Your task to perform on an android device: toggle data saver in the chrome app Image 0: 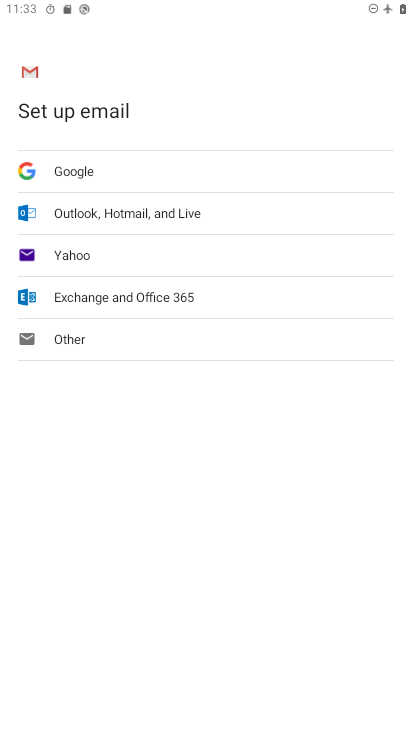
Step 0: press home button
Your task to perform on an android device: toggle data saver in the chrome app Image 1: 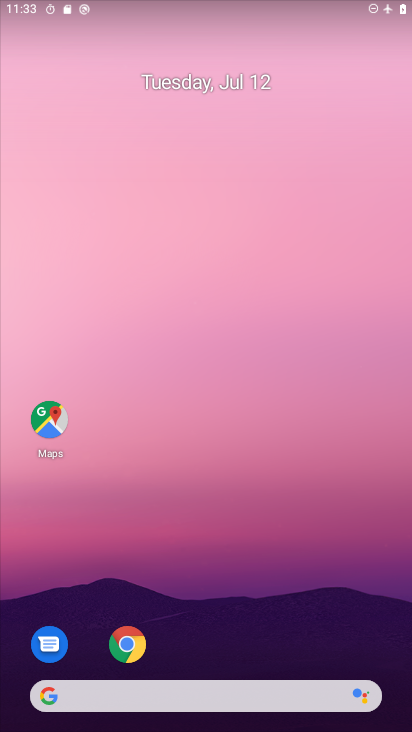
Step 1: click (118, 640)
Your task to perform on an android device: toggle data saver in the chrome app Image 2: 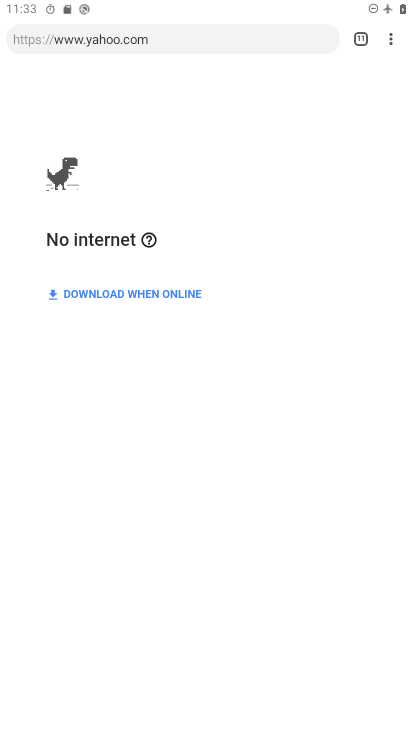
Step 2: click (385, 41)
Your task to perform on an android device: toggle data saver in the chrome app Image 3: 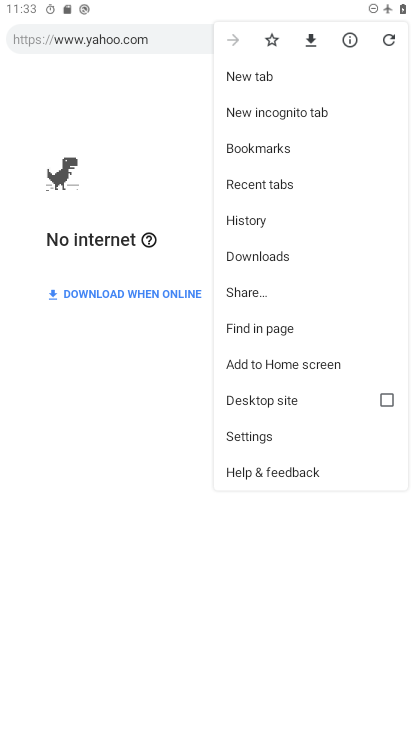
Step 3: click (270, 447)
Your task to perform on an android device: toggle data saver in the chrome app Image 4: 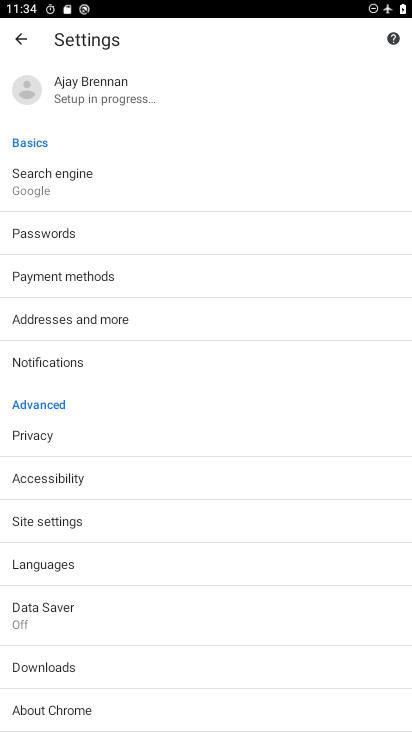
Step 4: click (81, 618)
Your task to perform on an android device: toggle data saver in the chrome app Image 5: 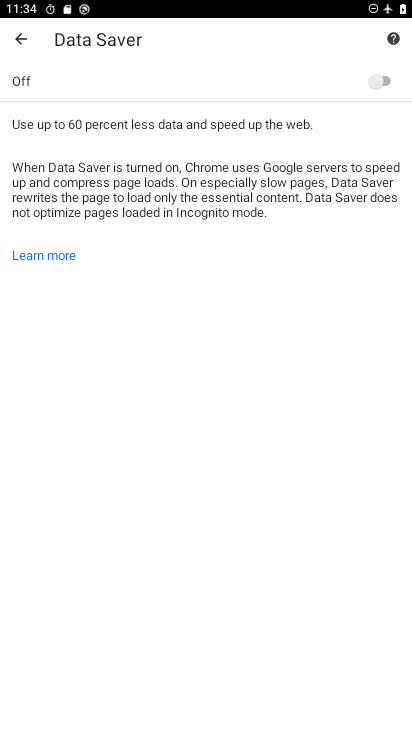
Step 5: click (385, 76)
Your task to perform on an android device: toggle data saver in the chrome app Image 6: 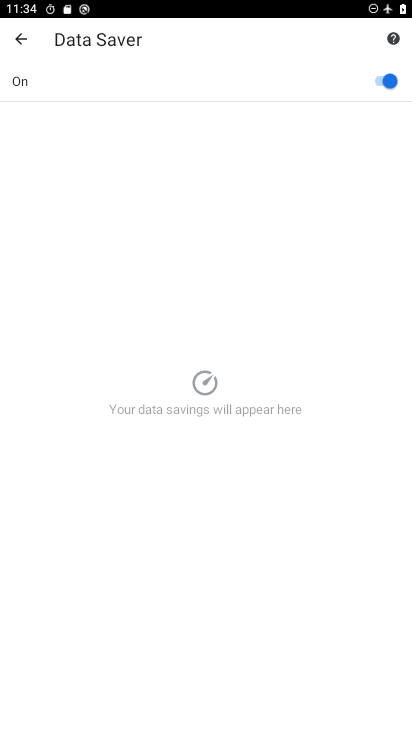
Step 6: task complete